Your task to perform on an android device: open a new tab in the chrome app Image 0: 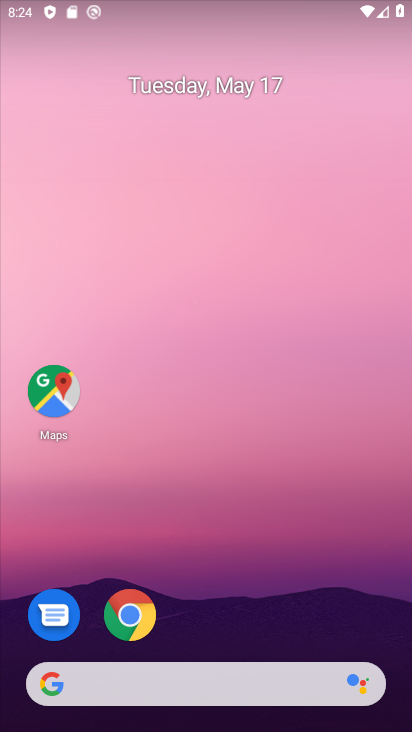
Step 0: click (137, 610)
Your task to perform on an android device: open a new tab in the chrome app Image 1: 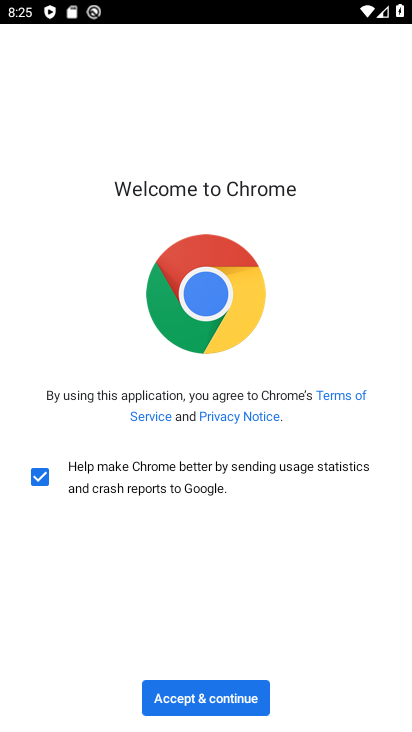
Step 1: click (217, 684)
Your task to perform on an android device: open a new tab in the chrome app Image 2: 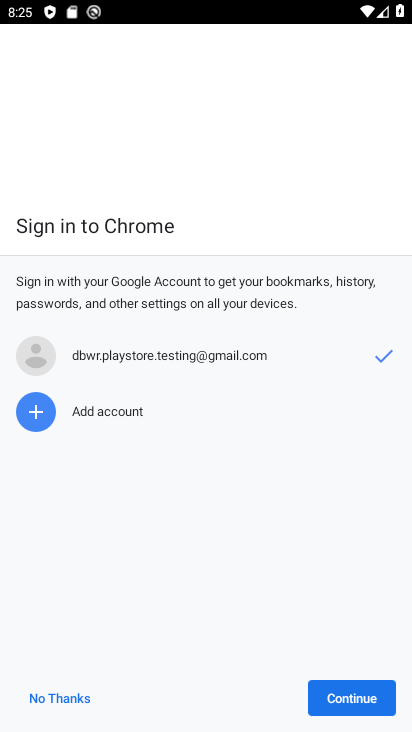
Step 2: click (342, 695)
Your task to perform on an android device: open a new tab in the chrome app Image 3: 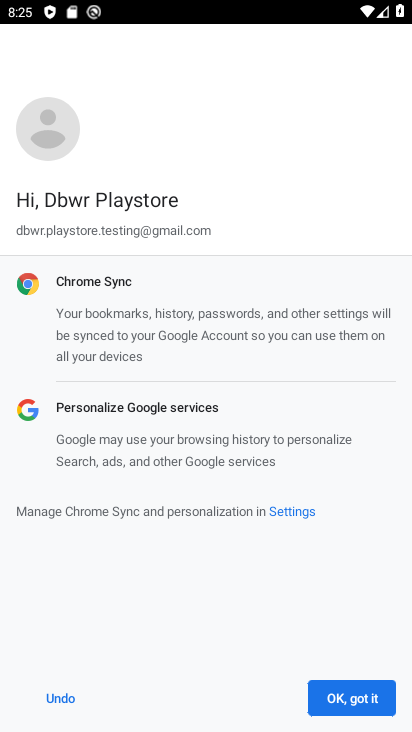
Step 3: click (342, 695)
Your task to perform on an android device: open a new tab in the chrome app Image 4: 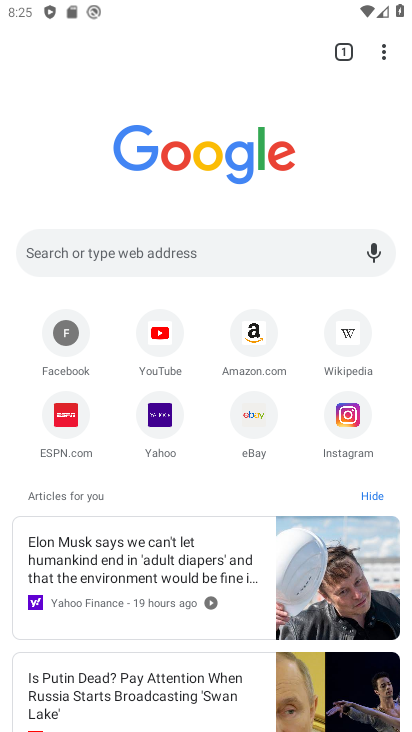
Step 4: task complete